Your task to perform on an android device: Add razer naga to the cart on walmart, then select checkout. Image 0: 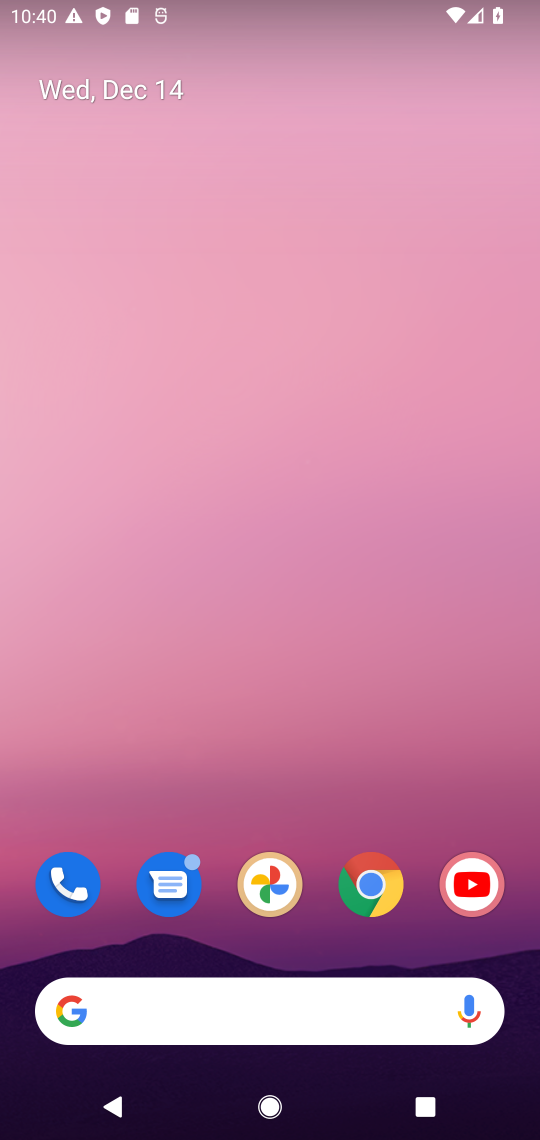
Step 0: click (379, 880)
Your task to perform on an android device: Add razer naga to the cart on walmart, then select checkout. Image 1: 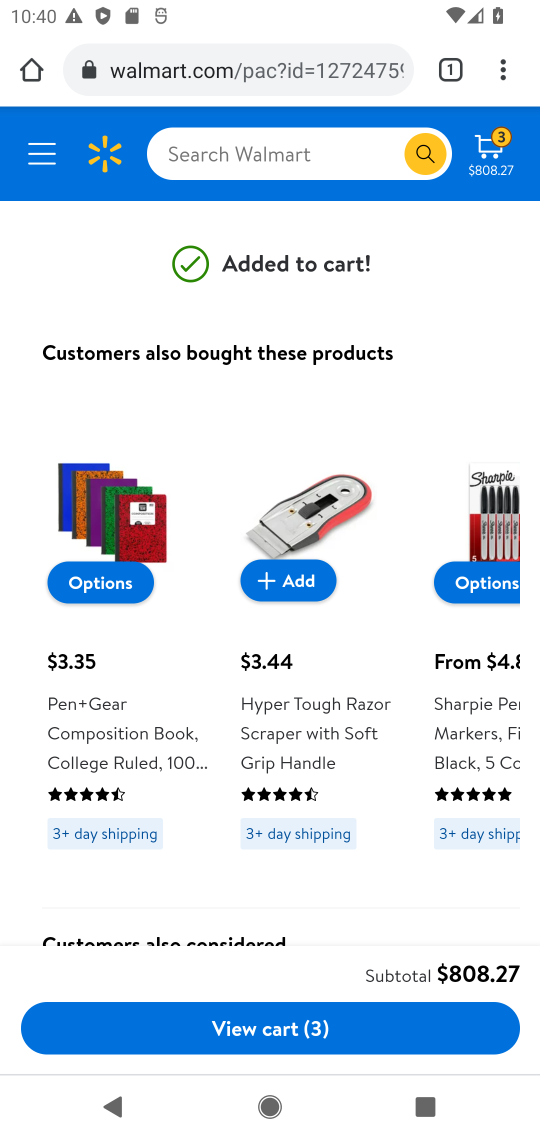
Step 1: click (295, 150)
Your task to perform on an android device: Add razer naga to the cart on walmart, then select checkout. Image 2: 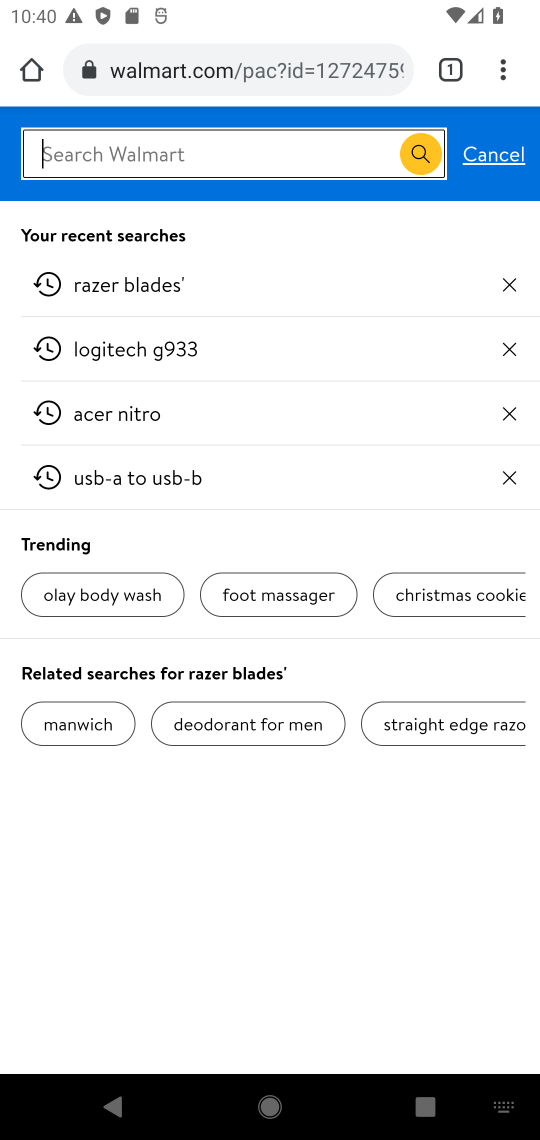
Step 2: press enter
Your task to perform on an android device: Add razer naga to the cart on walmart, then select checkout. Image 3: 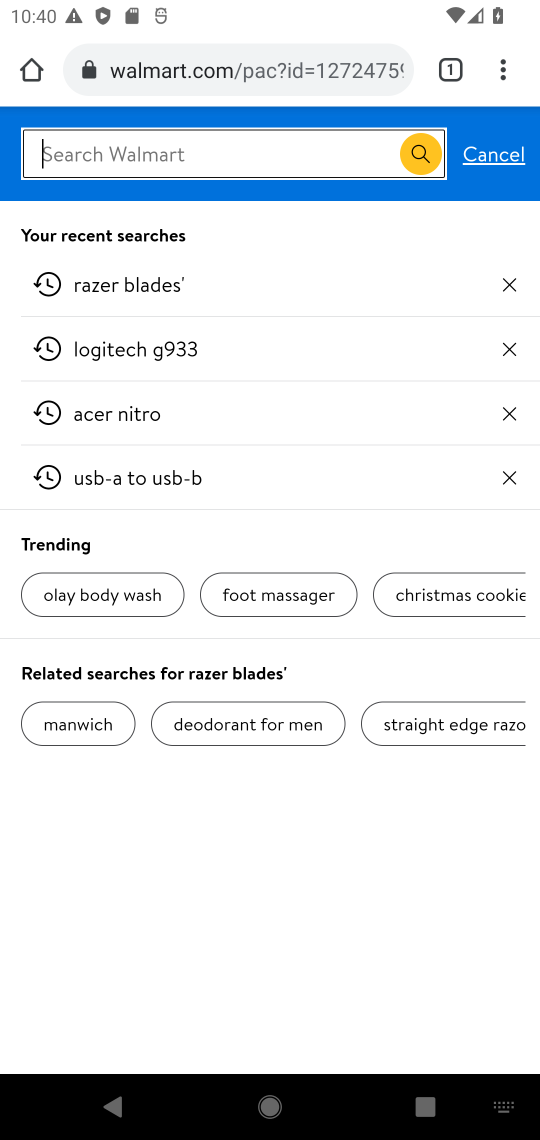
Step 3: type "razer naga"
Your task to perform on an android device: Add razer naga to the cart on walmart, then select checkout. Image 4: 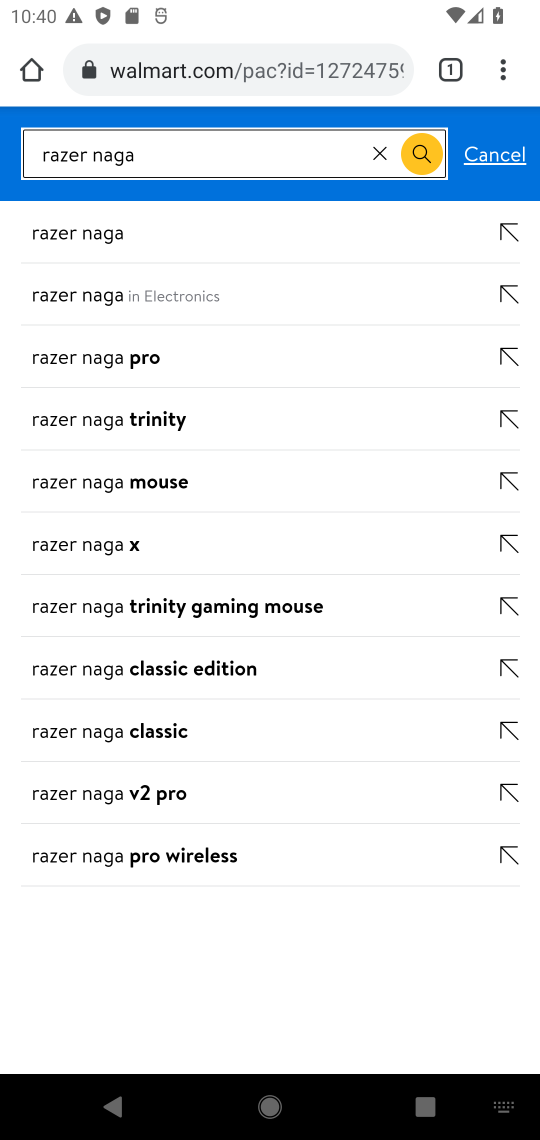
Step 4: click (108, 238)
Your task to perform on an android device: Add razer naga to the cart on walmart, then select checkout. Image 5: 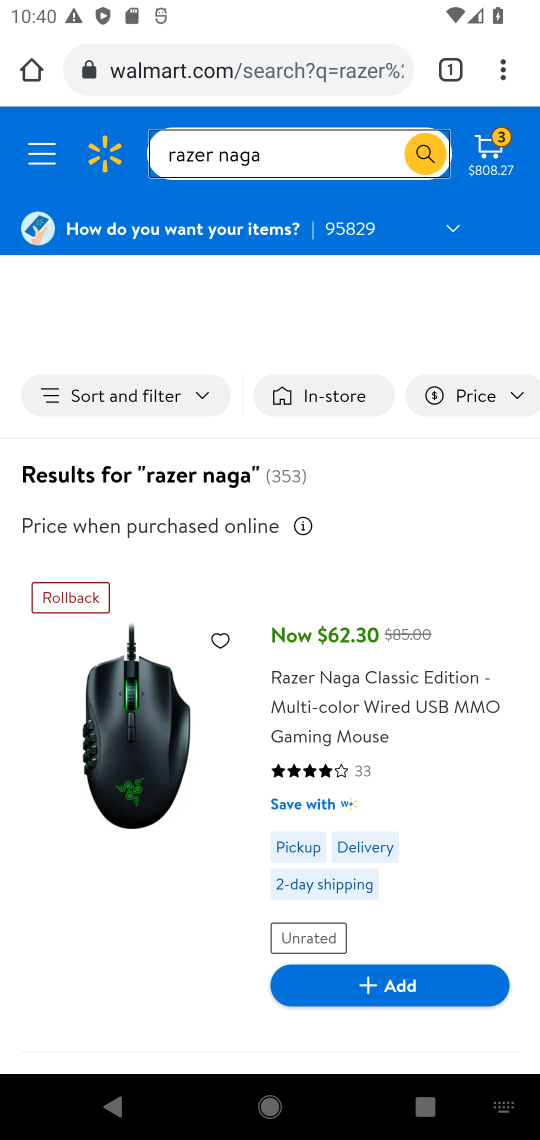
Step 5: click (105, 713)
Your task to perform on an android device: Add razer naga to the cart on walmart, then select checkout. Image 6: 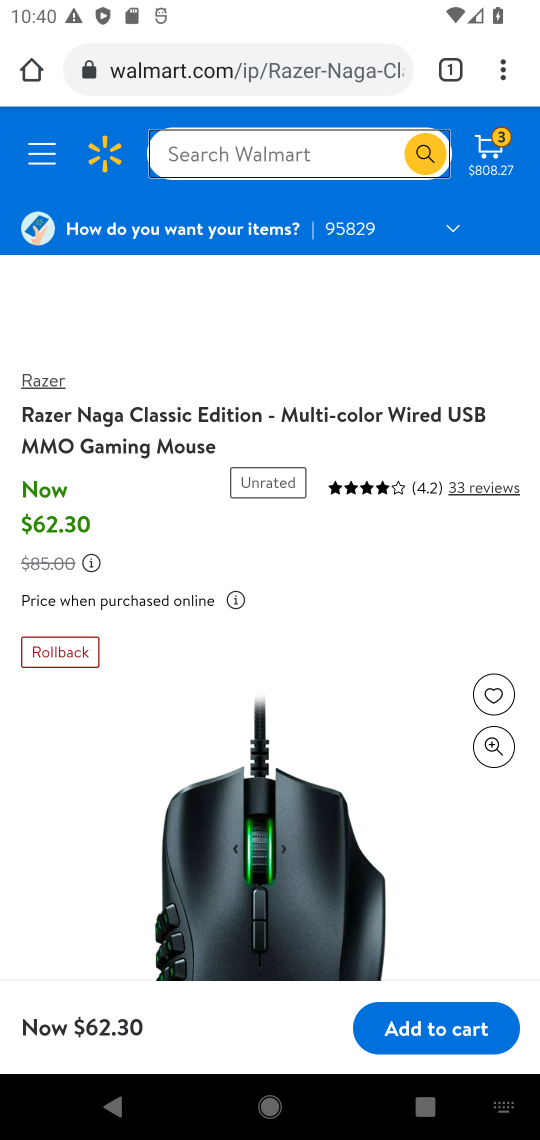
Step 6: drag from (448, 905) to (452, 693)
Your task to perform on an android device: Add razer naga to the cart on walmart, then select checkout. Image 7: 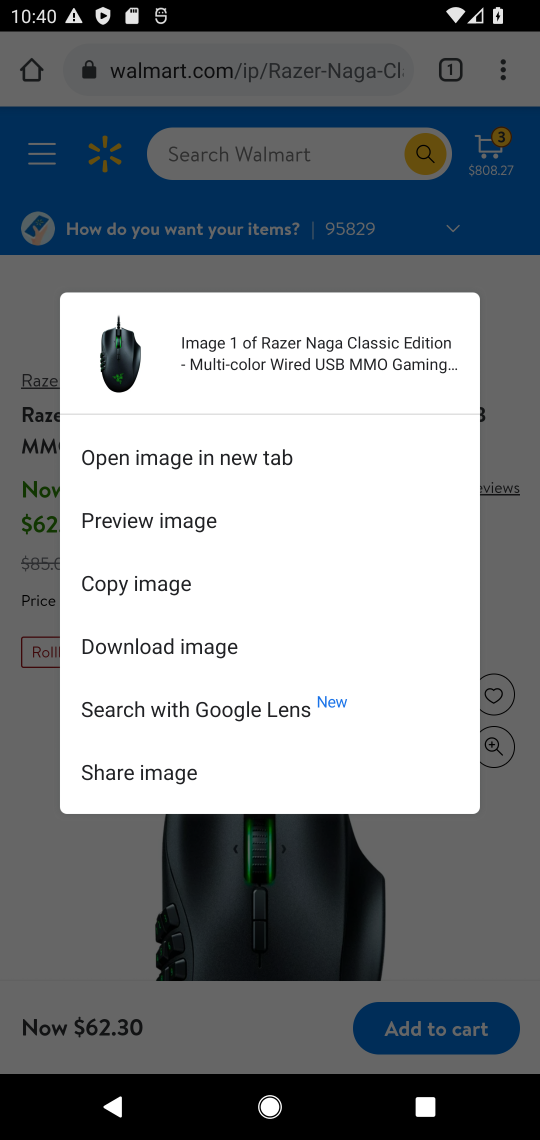
Step 7: click (496, 925)
Your task to perform on an android device: Add razer naga to the cart on walmart, then select checkout. Image 8: 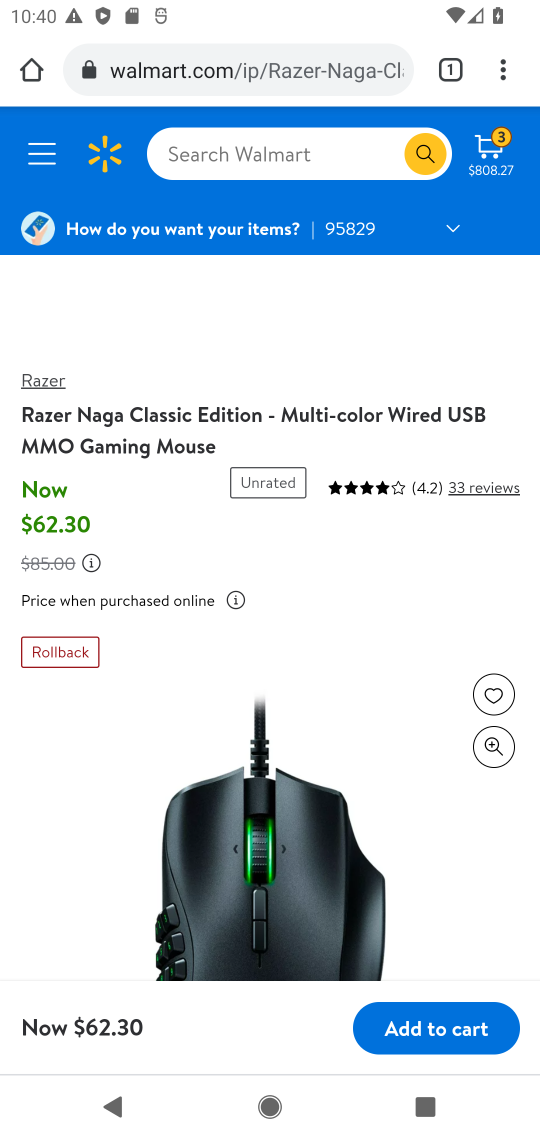
Step 8: click (439, 1025)
Your task to perform on an android device: Add razer naga to the cart on walmart, then select checkout. Image 9: 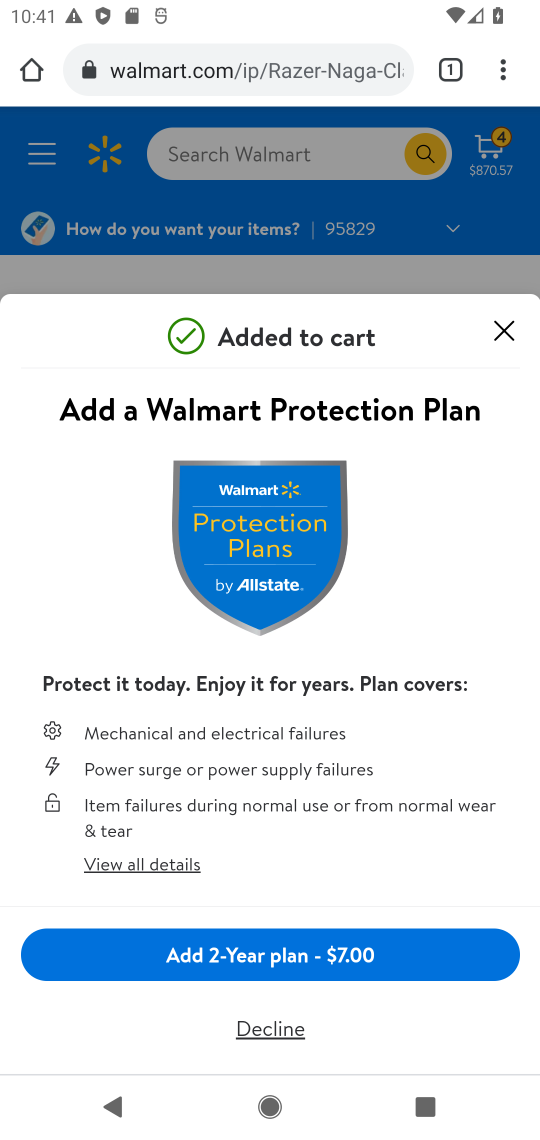
Step 9: drag from (216, 813) to (213, 310)
Your task to perform on an android device: Add razer naga to the cart on walmart, then select checkout. Image 10: 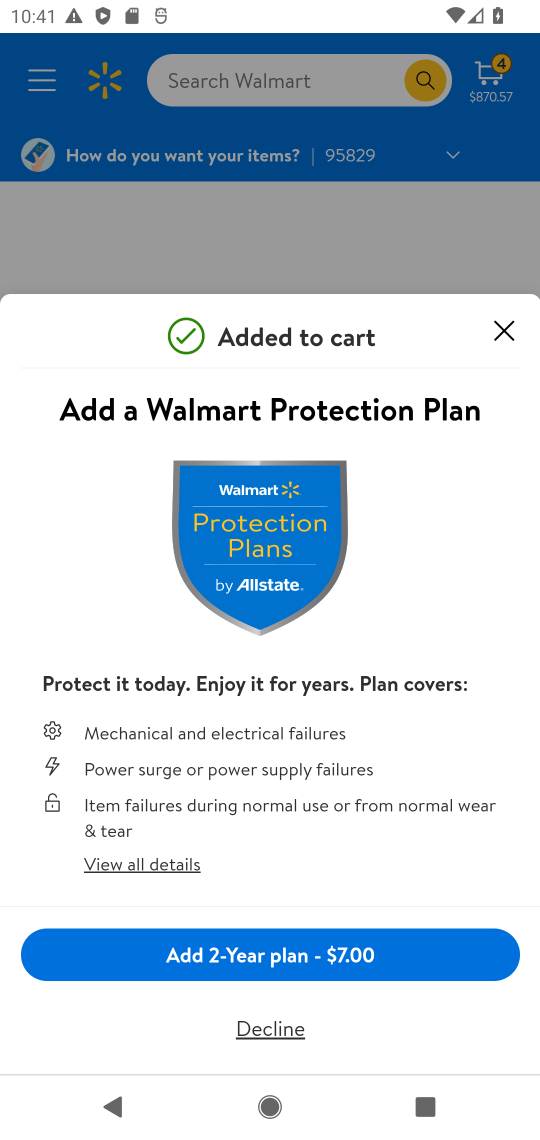
Step 10: click (510, 254)
Your task to perform on an android device: Add razer naga to the cart on walmart, then select checkout. Image 11: 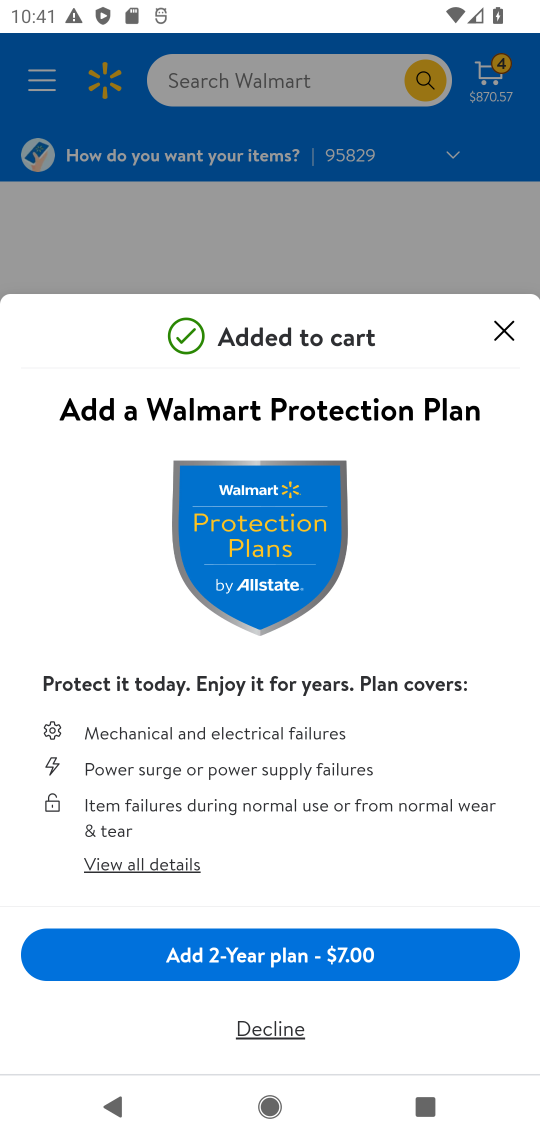
Step 11: click (497, 337)
Your task to perform on an android device: Add razer naga to the cart on walmart, then select checkout. Image 12: 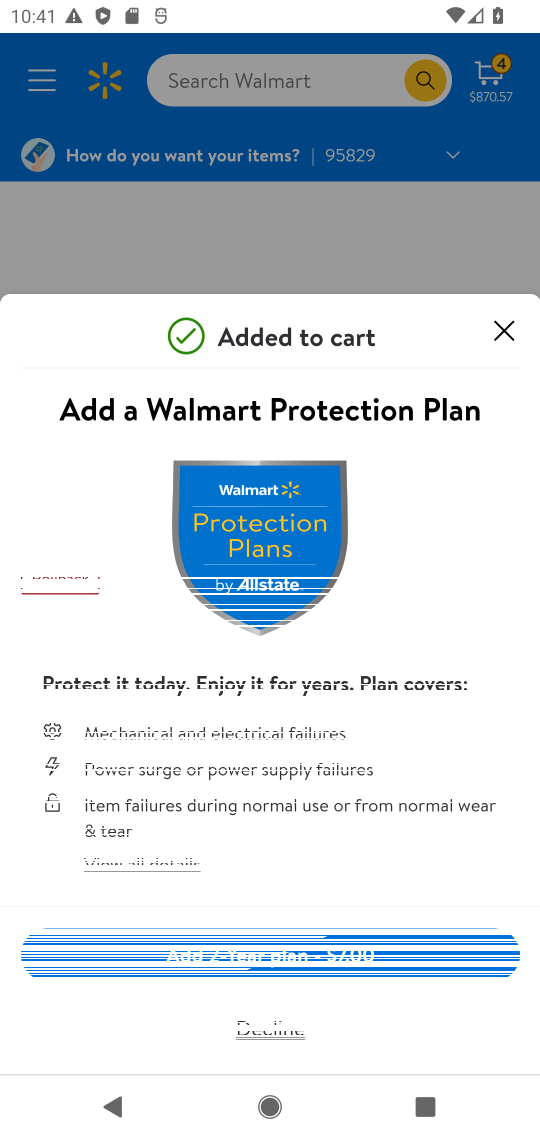
Step 12: click (507, 325)
Your task to perform on an android device: Add razer naga to the cart on walmart, then select checkout. Image 13: 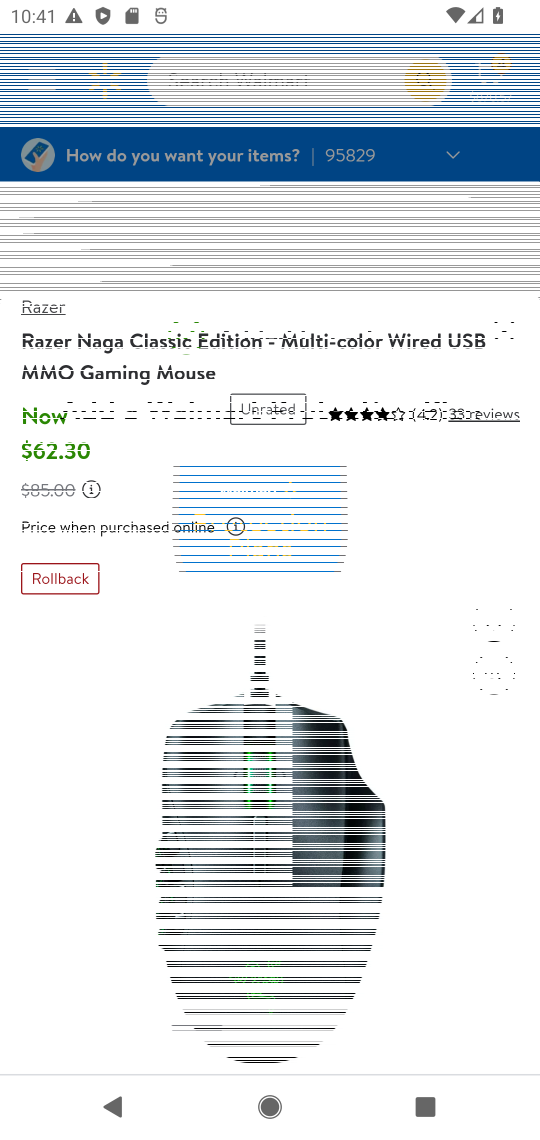
Step 13: drag from (432, 888) to (434, 222)
Your task to perform on an android device: Add razer naga to the cart on walmart, then select checkout. Image 14: 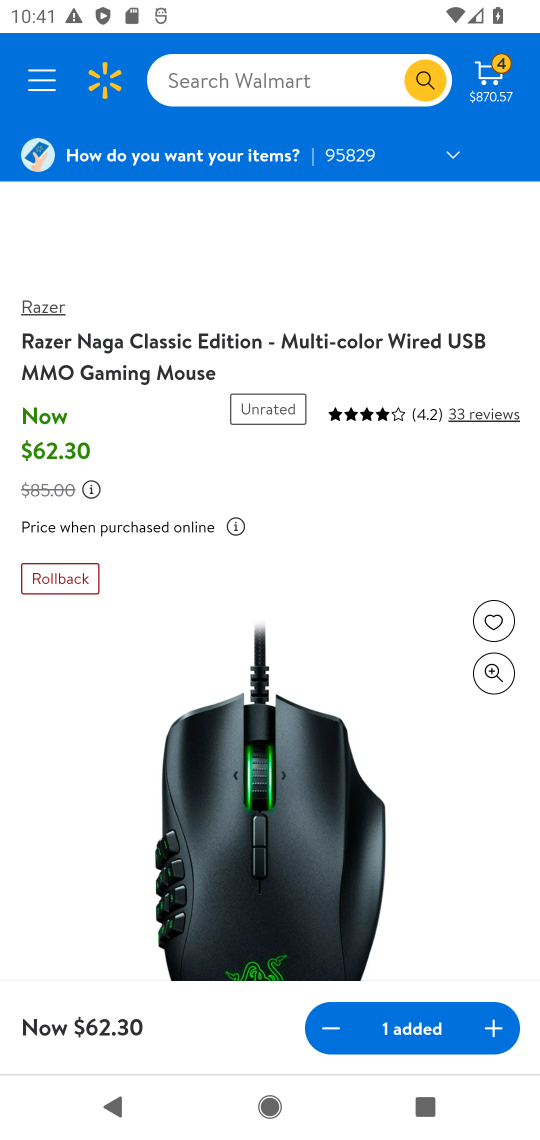
Step 14: drag from (424, 788) to (455, 230)
Your task to perform on an android device: Add razer naga to the cart on walmart, then select checkout. Image 15: 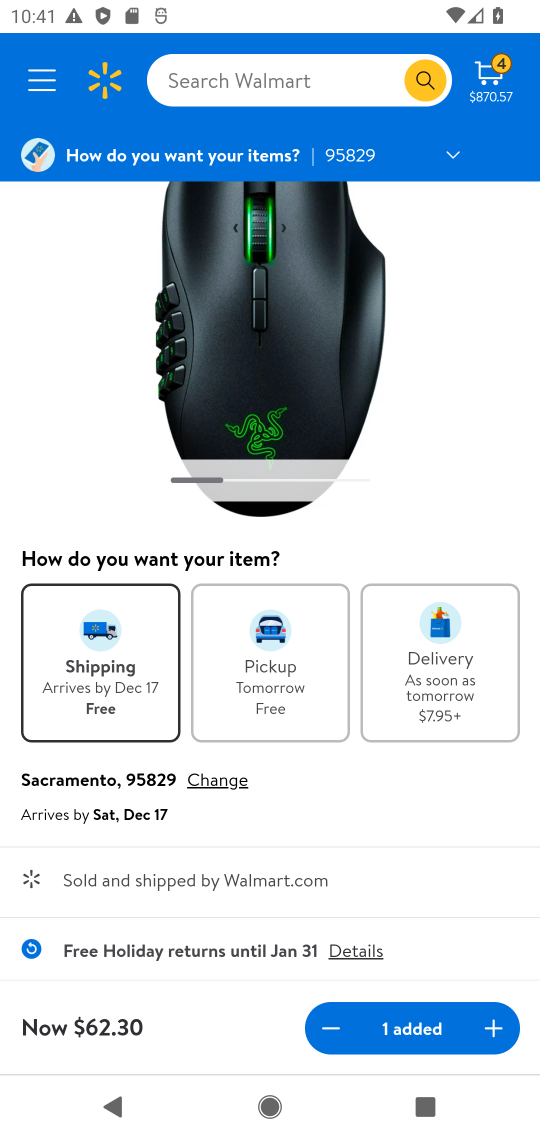
Step 15: drag from (403, 829) to (395, 214)
Your task to perform on an android device: Add razer naga to the cart on walmart, then select checkout. Image 16: 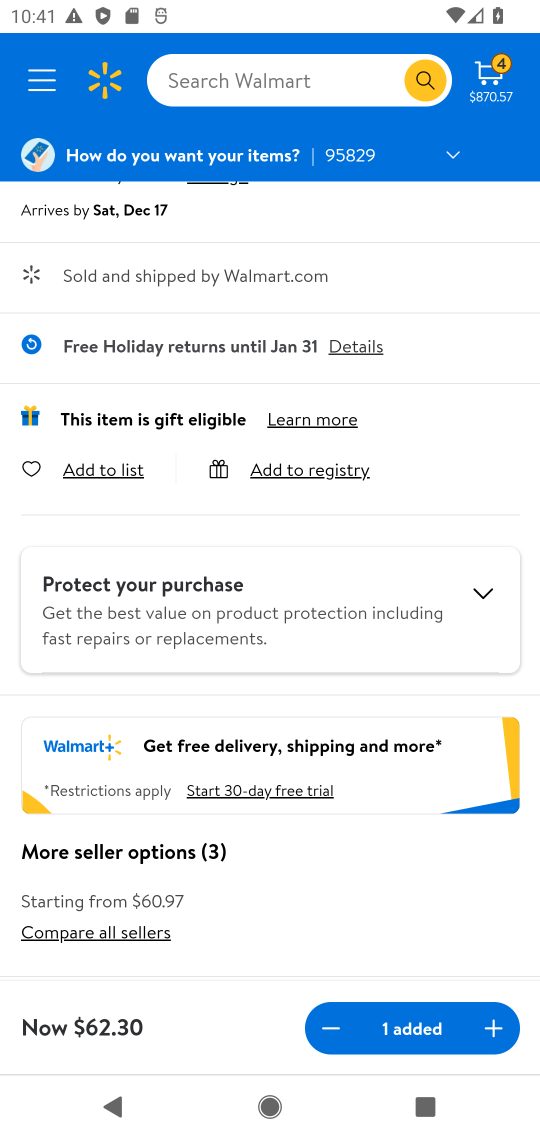
Step 16: drag from (434, 608) to (440, 218)
Your task to perform on an android device: Add razer naga to the cart on walmart, then select checkout. Image 17: 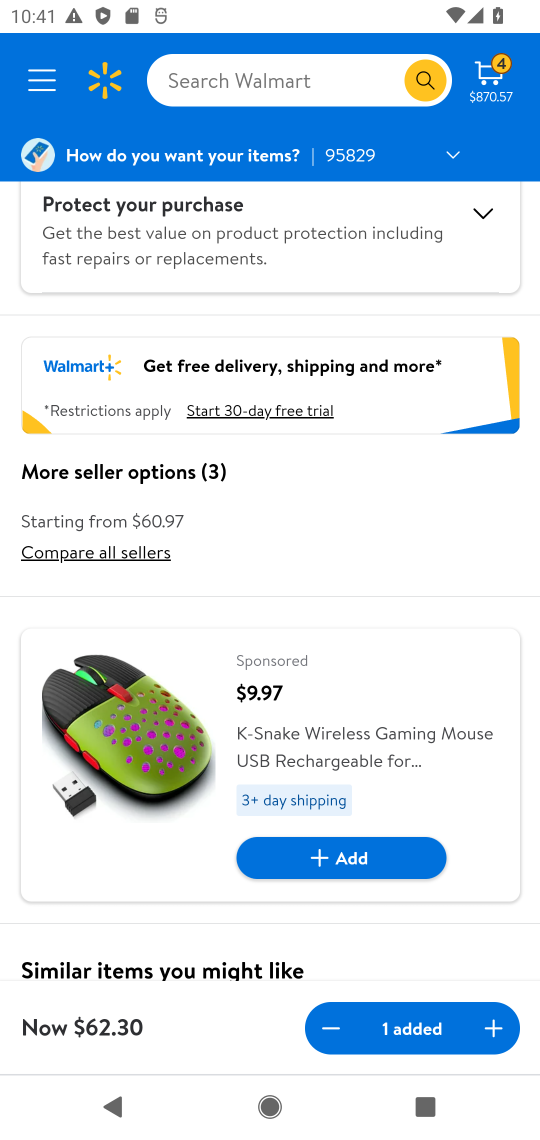
Step 17: click (387, 1030)
Your task to perform on an android device: Add razer naga to the cart on walmart, then select checkout. Image 18: 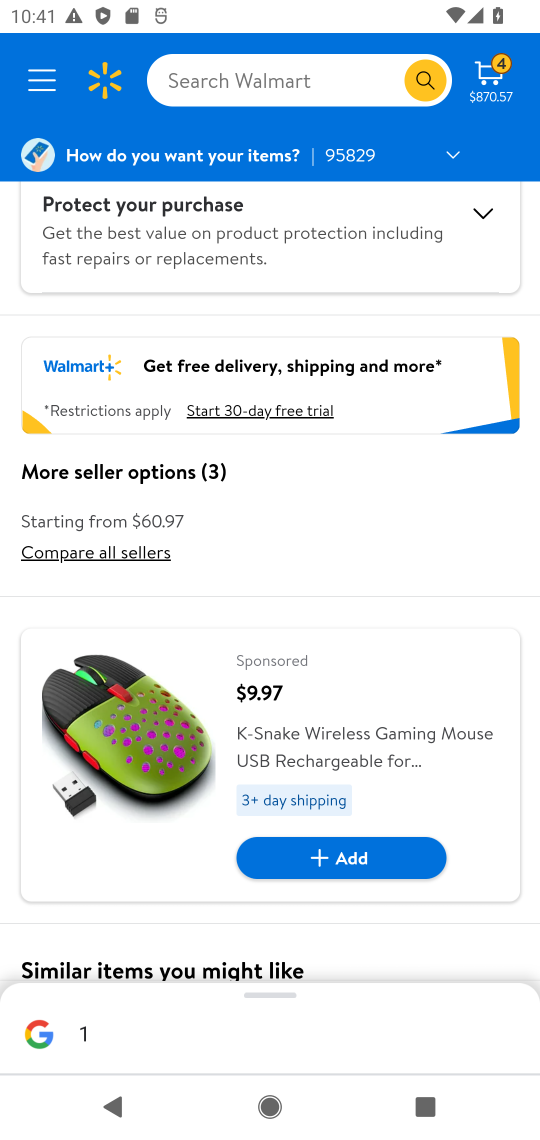
Step 18: click (489, 86)
Your task to perform on an android device: Add razer naga to the cart on walmart, then select checkout. Image 19: 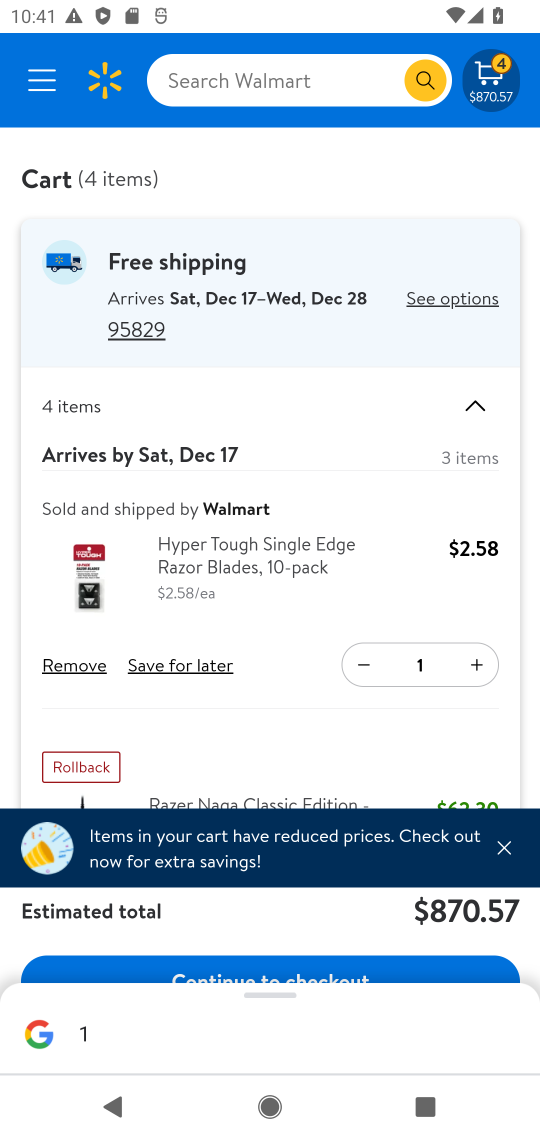
Step 19: drag from (306, 711) to (339, 99)
Your task to perform on an android device: Add razer naga to the cart on walmart, then select checkout. Image 20: 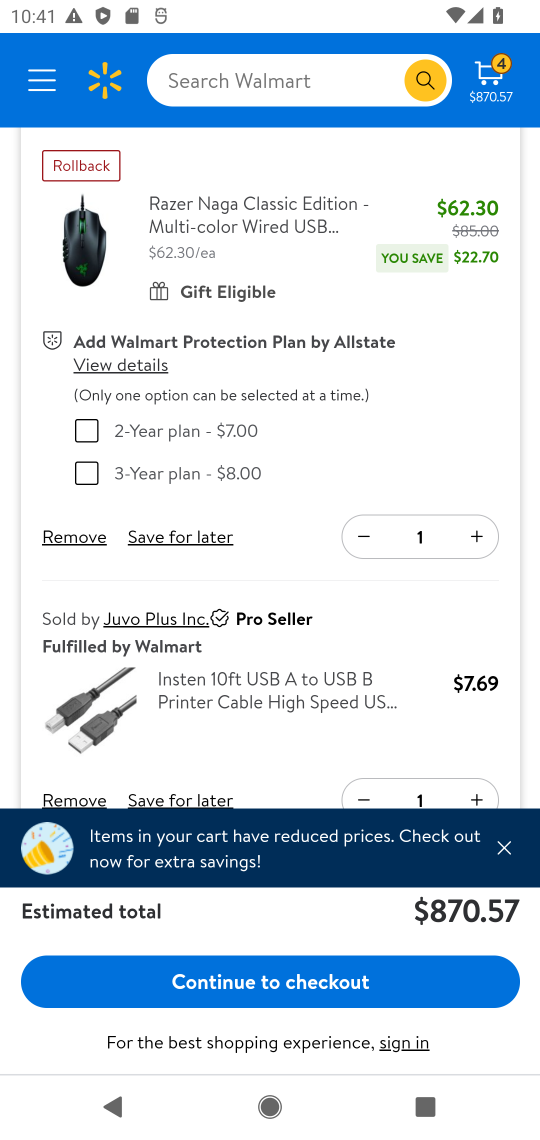
Step 20: click (274, 978)
Your task to perform on an android device: Add razer naga to the cart on walmart, then select checkout. Image 21: 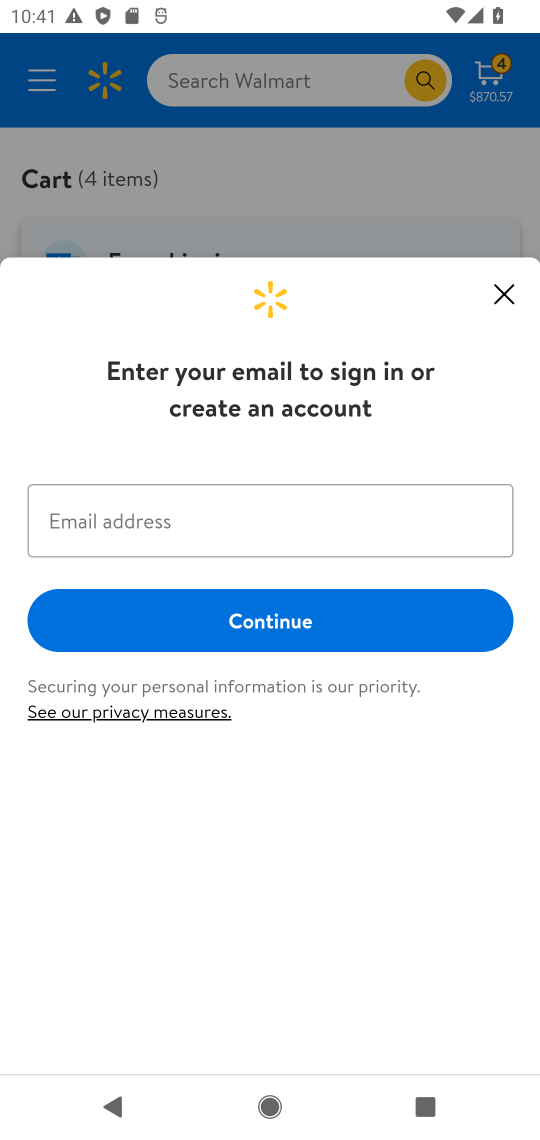
Step 21: task complete